Your task to perform on an android device: Go to wifi settings Image 0: 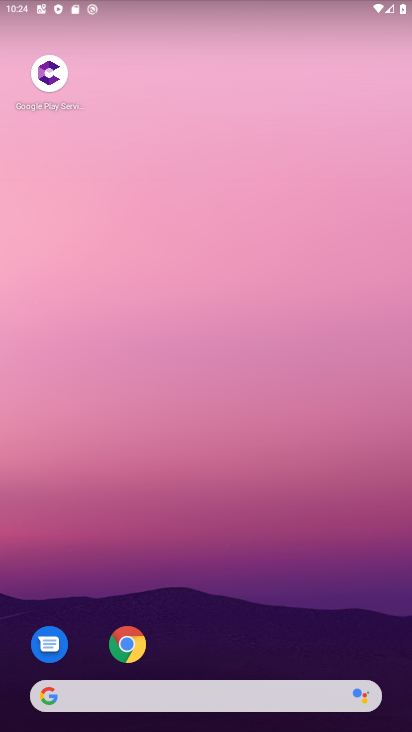
Step 0: drag from (221, 591) to (305, 218)
Your task to perform on an android device: Go to wifi settings Image 1: 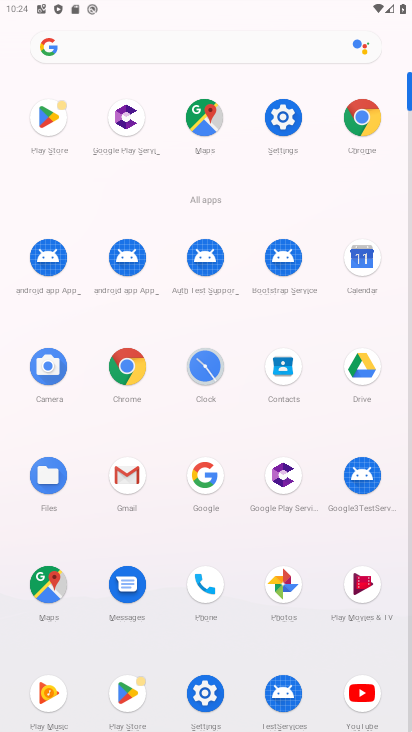
Step 1: click (191, 694)
Your task to perform on an android device: Go to wifi settings Image 2: 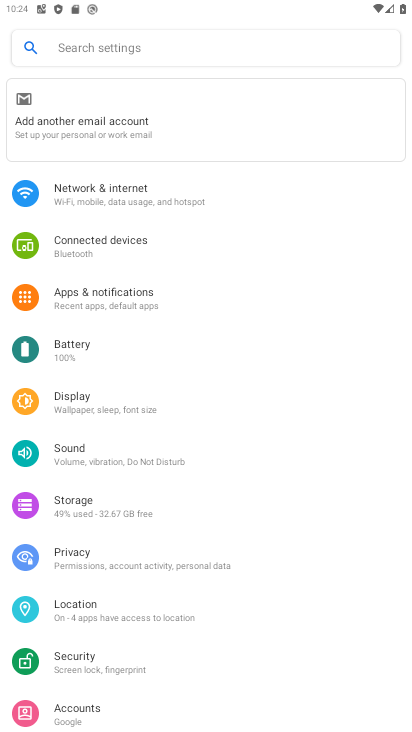
Step 2: click (135, 203)
Your task to perform on an android device: Go to wifi settings Image 3: 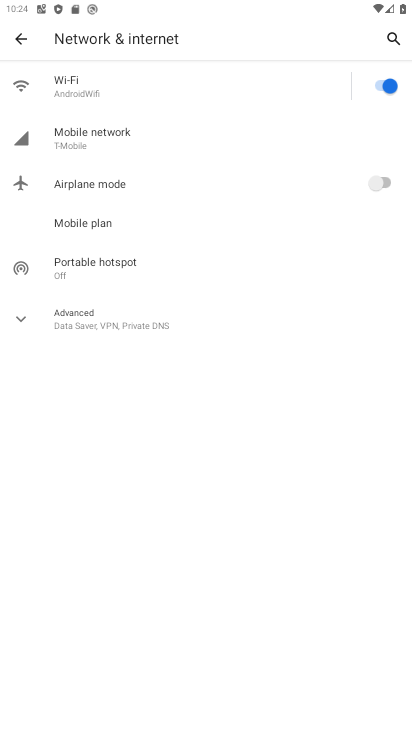
Step 3: click (125, 94)
Your task to perform on an android device: Go to wifi settings Image 4: 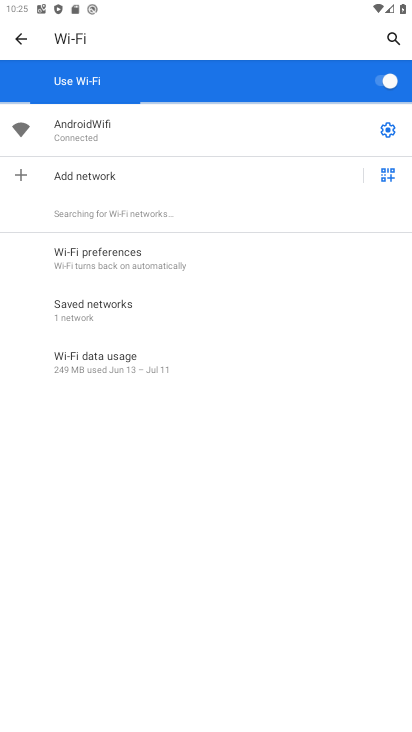
Step 4: task complete